Your task to perform on an android device: Open Chrome and go to settings Image 0: 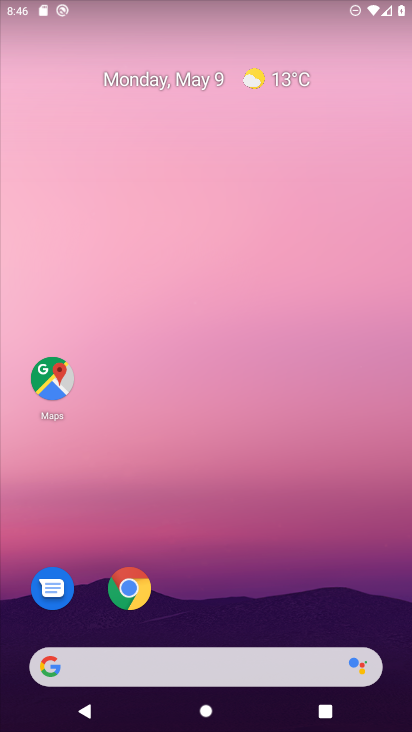
Step 0: click (119, 581)
Your task to perform on an android device: Open Chrome and go to settings Image 1: 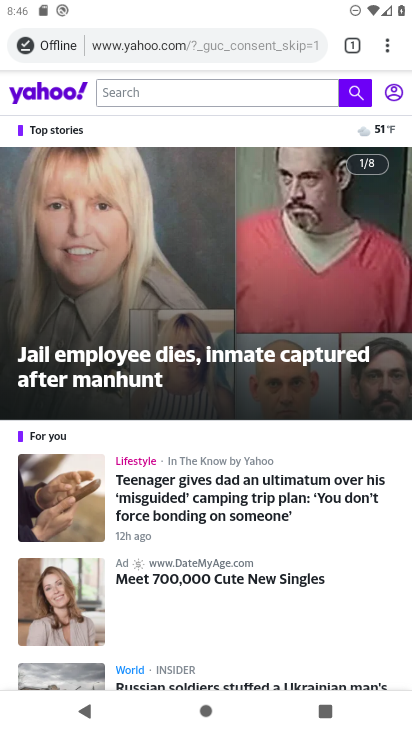
Step 1: task complete